Your task to perform on an android device: stop showing notifications on the lock screen Image 0: 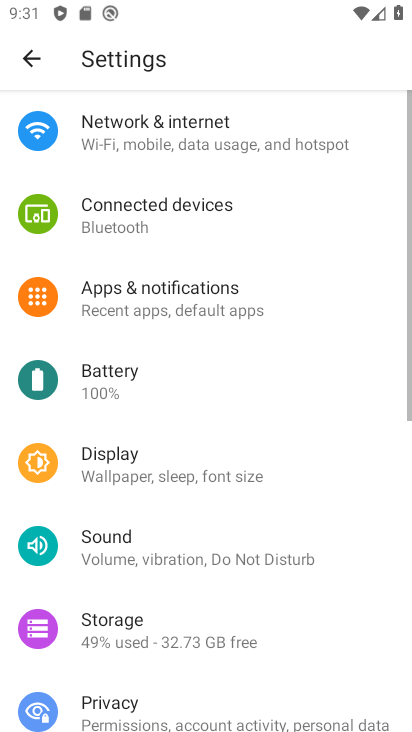
Step 0: click (189, 304)
Your task to perform on an android device: stop showing notifications on the lock screen Image 1: 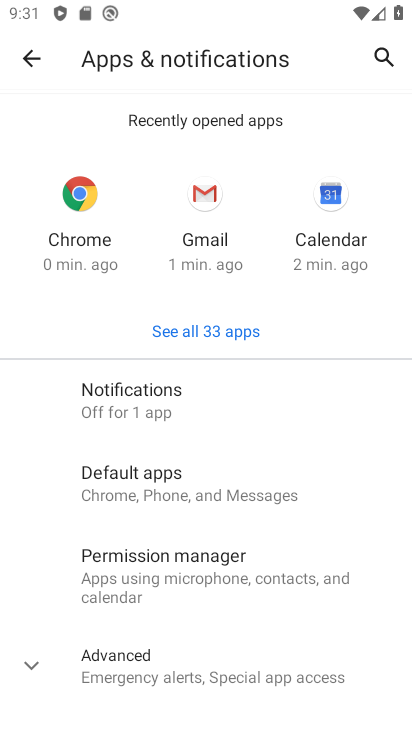
Step 1: click (144, 413)
Your task to perform on an android device: stop showing notifications on the lock screen Image 2: 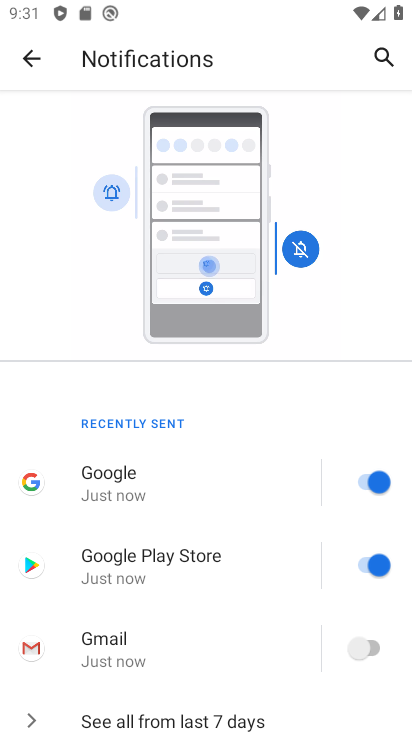
Step 2: drag from (138, 599) to (252, 149)
Your task to perform on an android device: stop showing notifications on the lock screen Image 3: 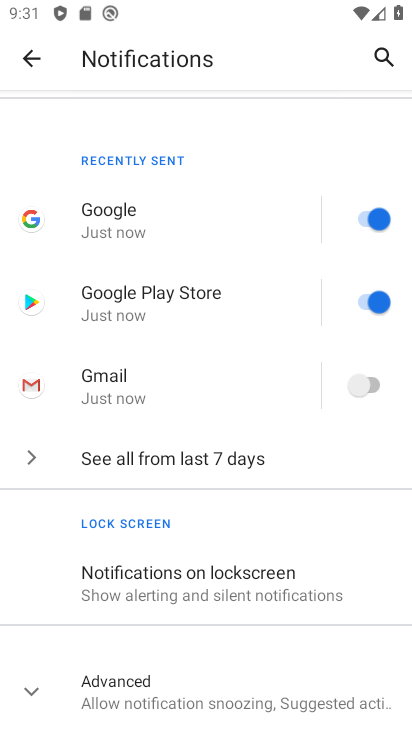
Step 3: click (219, 582)
Your task to perform on an android device: stop showing notifications on the lock screen Image 4: 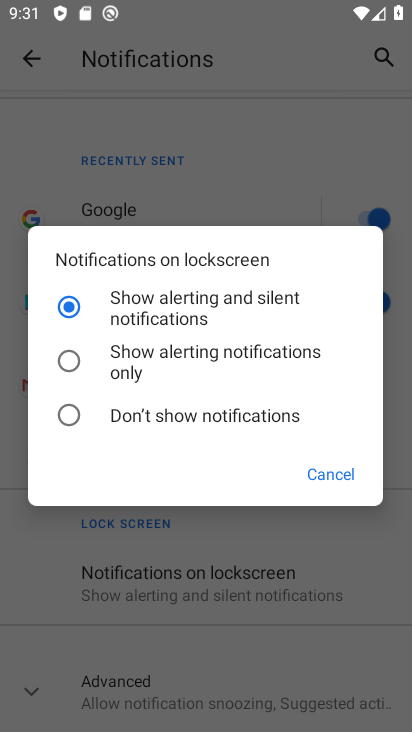
Step 4: click (62, 415)
Your task to perform on an android device: stop showing notifications on the lock screen Image 5: 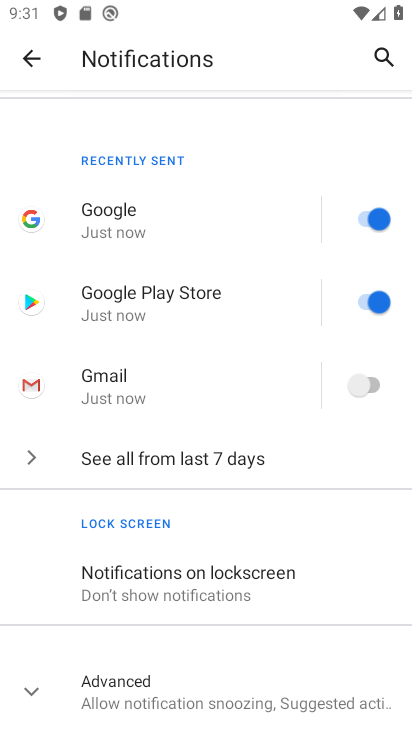
Step 5: task complete